Your task to perform on an android device: empty trash in google photos Image 0: 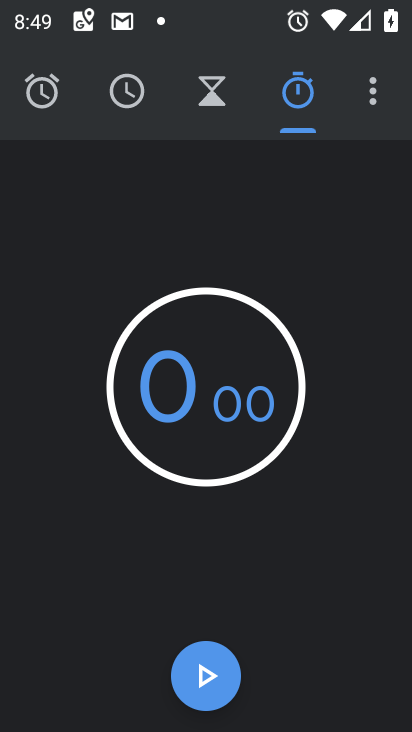
Step 0: press home button
Your task to perform on an android device: empty trash in google photos Image 1: 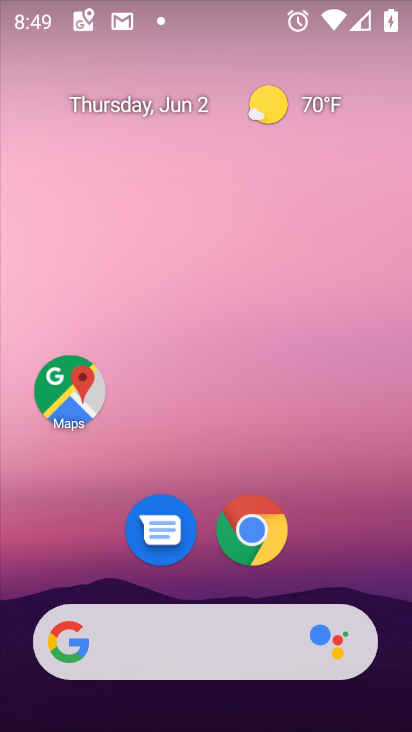
Step 1: drag from (240, 544) to (243, 263)
Your task to perform on an android device: empty trash in google photos Image 2: 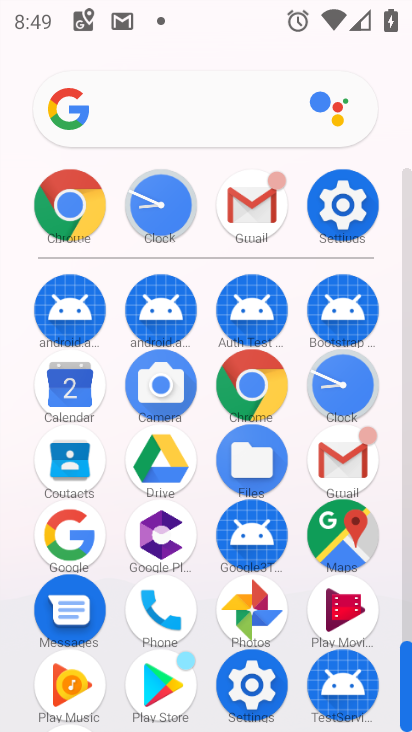
Step 2: click (247, 614)
Your task to perform on an android device: empty trash in google photos Image 3: 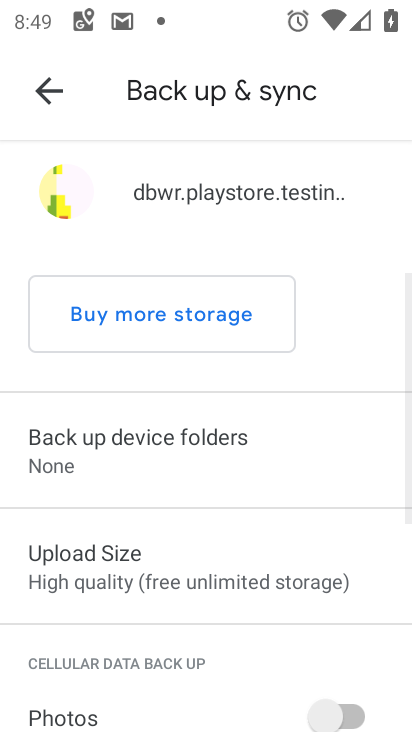
Step 3: click (58, 90)
Your task to perform on an android device: empty trash in google photos Image 4: 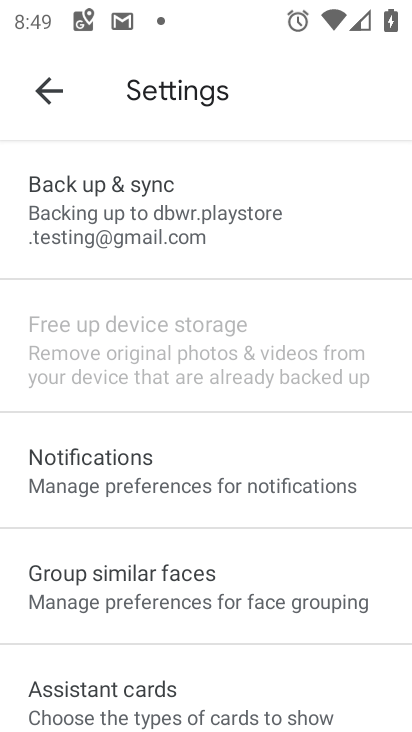
Step 4: click (38, 95)
Your task to perform on an android device: empty trash in google photos Image 5: 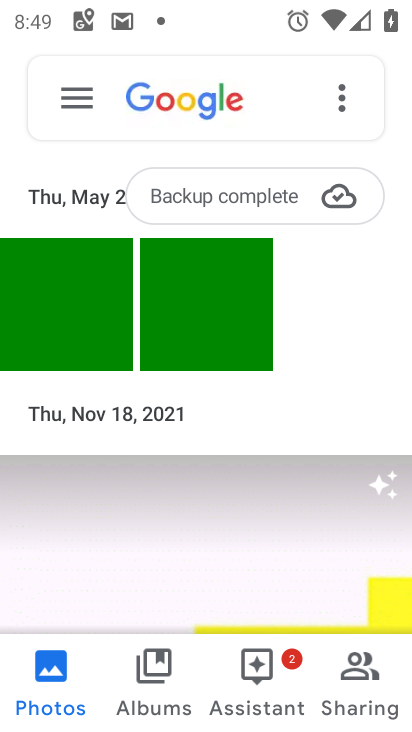
Step 5: click (61, 102)
Your task to perform on an android device: empty trash in google photos Image 6: 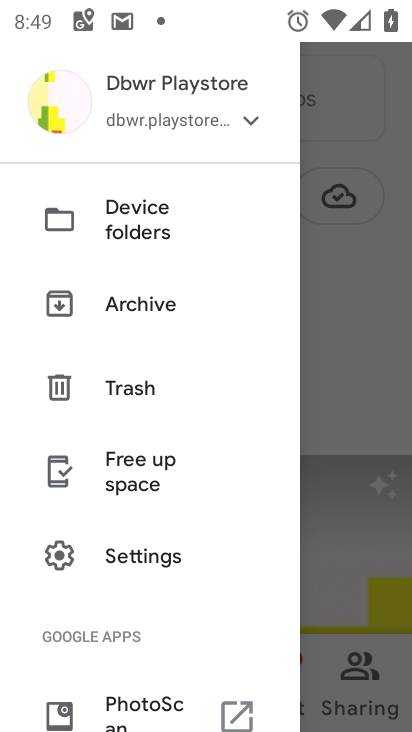
Step 6: click (134, 389)
Your task to perform on an android device: empty trash in google photos Image 7: 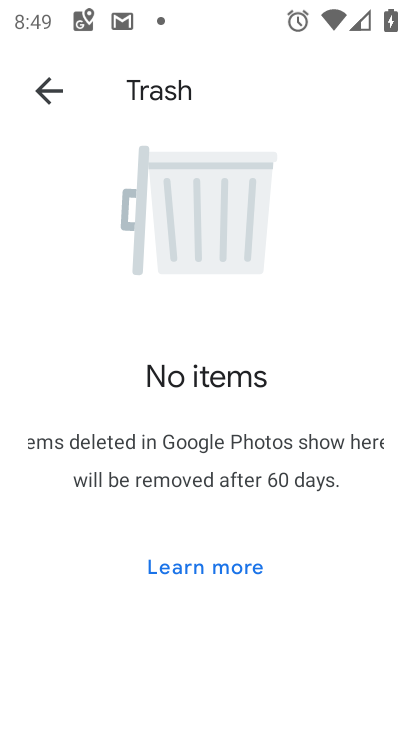
Step 7: task complete